Your task to perform on an android device: open wifi settings Image 0: 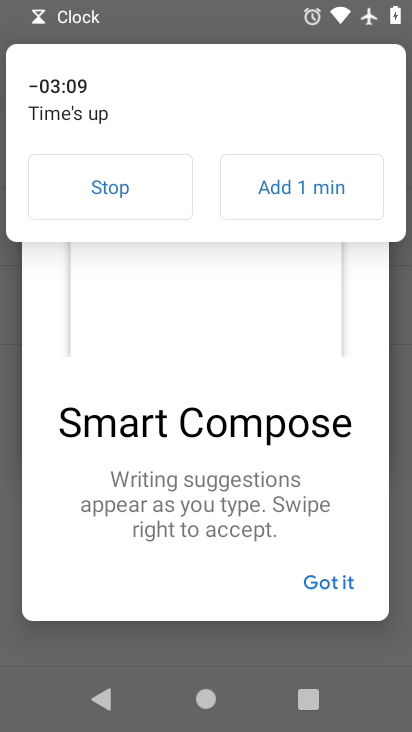
Step 0: press home button
Your task to perform on an android device: open wifi settings Image 1: 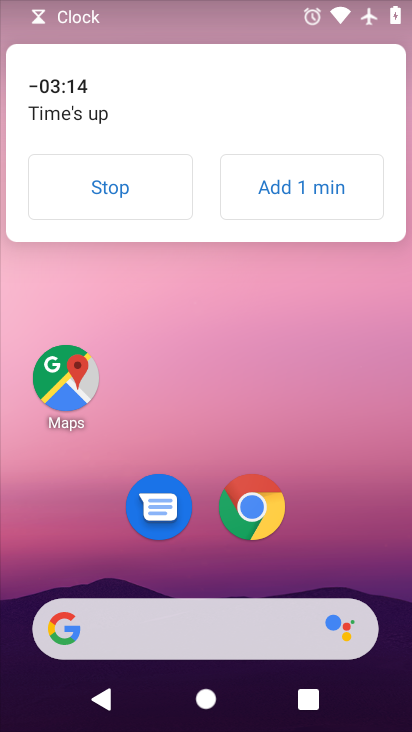
Step 1: drag from (214, 726) to (217, 224)
Your task to perform on an android device: open wifi settings Image 2: 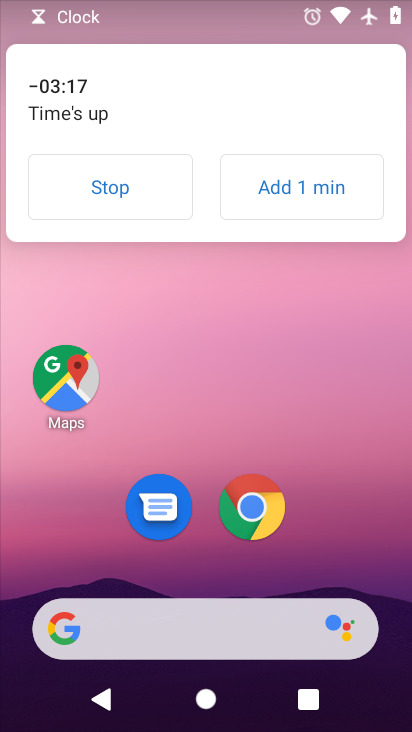
Step 2: drag from (221, 687) to (218, 155)
Your task to perform on an android device: open wifi settings Image 3: 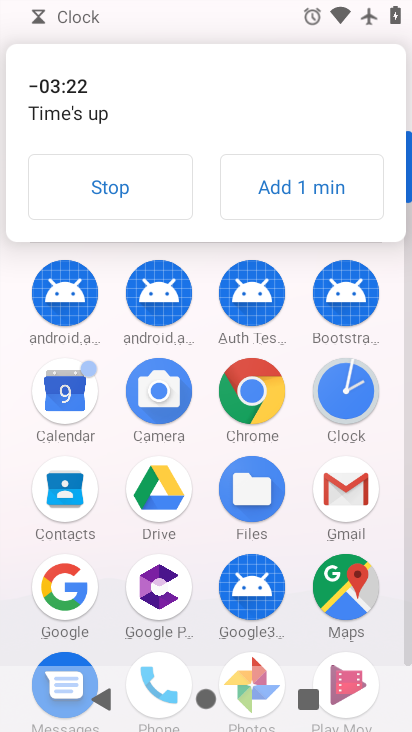
Step 3: drag from (197, 651) to (191, 316)
Your task to perform on an android device: open wifi settings Image 4: 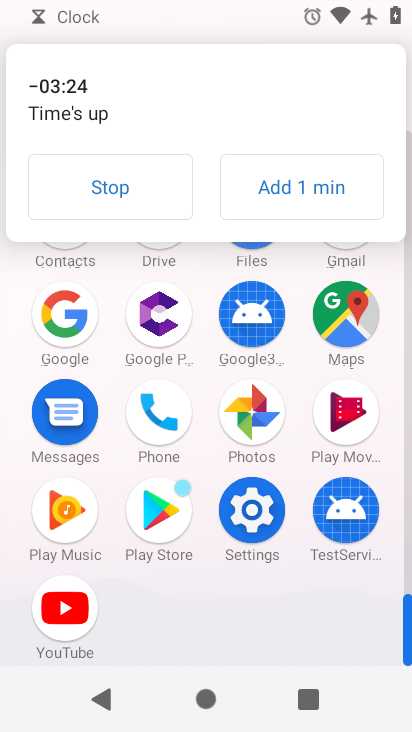
Step 4: click (247, 507)
Your task to perform on an android device: open wifi settings Image 5: 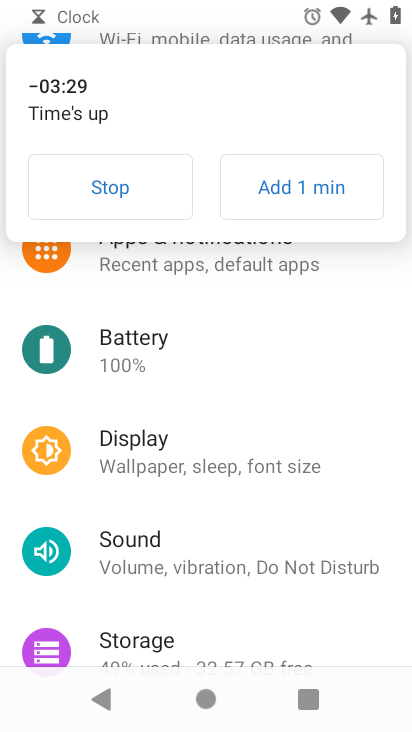
Step 5: click (125, 186)
Your task to perform on an android device: open wifi settings Image 6: 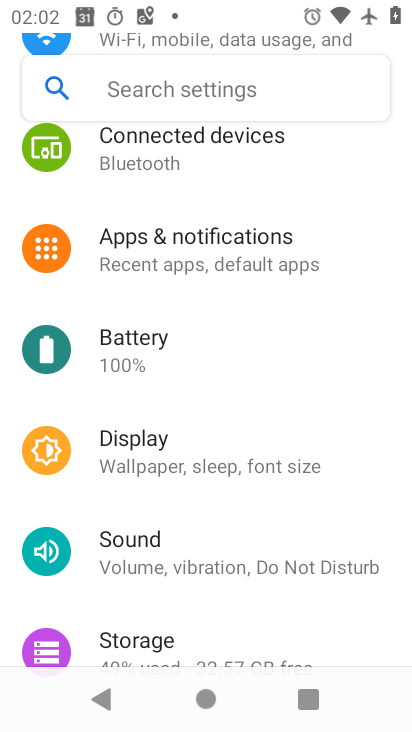
Step 6: drag from (259, 187) to (272, 610)
Your task to perform on an android device: open wifi settings Image 7: 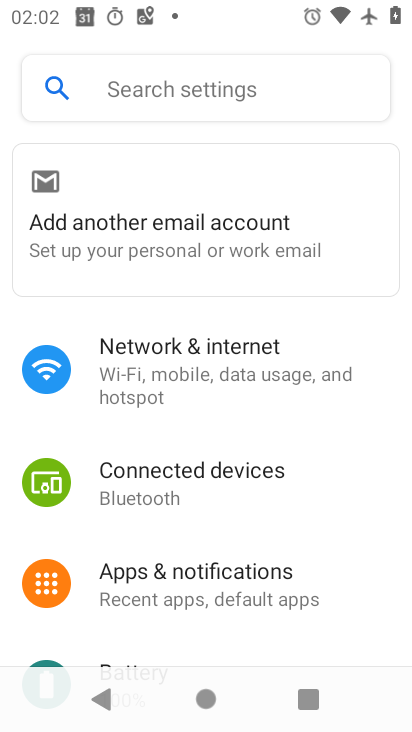
Step 7: click (202, 369)
Your task to perform on an android device: open wifi settings Image 8: 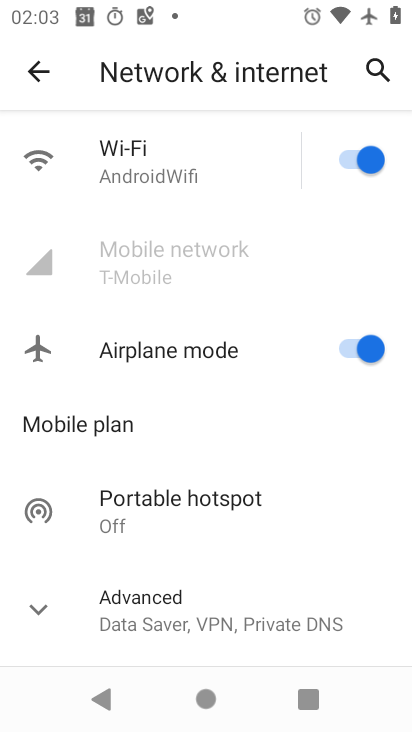
Step 8: click (140, 165)
Your task to perform on an android device: open wifi settings Image 9: 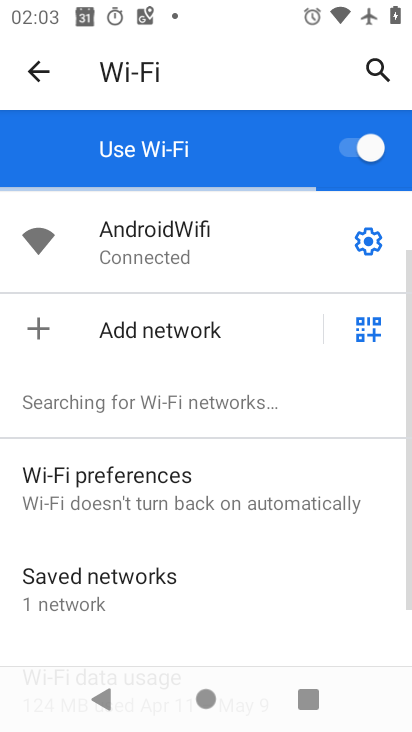
Step 9: task complete